Your task to perform on an android device: change notifications settings Image 0: 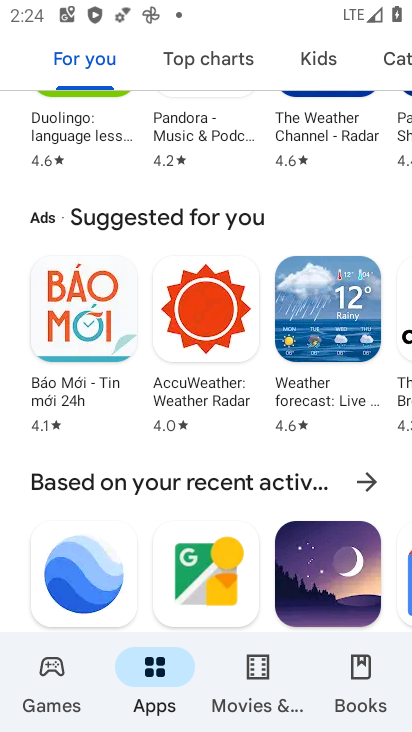
Step 0: press home button
Your task to perform on an android device: change notifications settings Image 1: 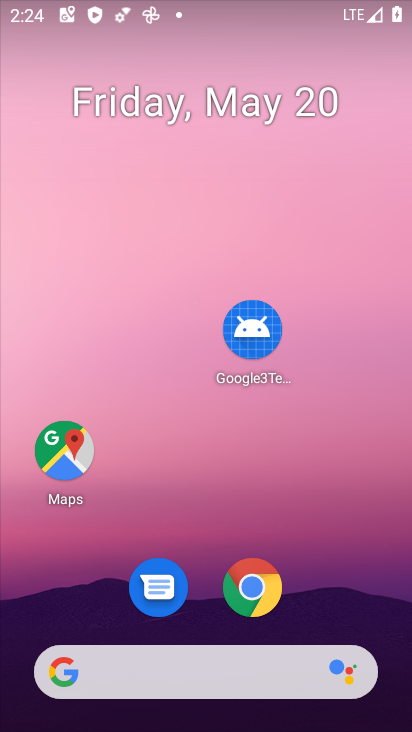
Step 1: drag from (334, 528) to (297, 12)
Your task to perform on an android device: change notifications settings Image 2: 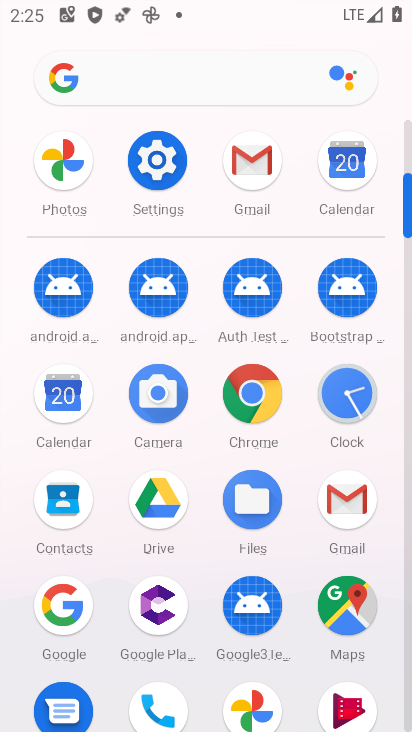
Step 2: click (152, 164)
Your task to perform on an android device: change notifications settings Image 3: 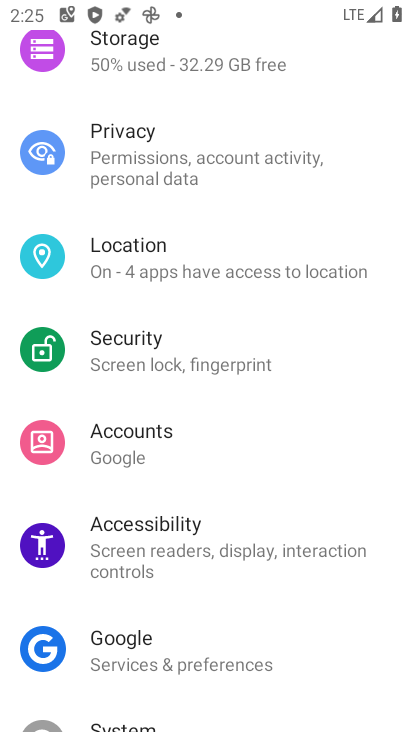
Step 3: drag from (220, 207) to (187, 621)
Your task to perform on an android device: change notifications settings Image 4: 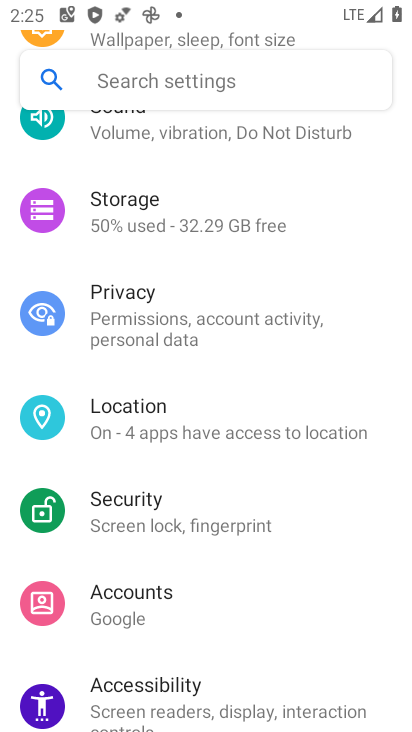
Step 4: drag from (245, 189) to (210, 615)
Your task to perform on an android device: change notifications settings Image 5: 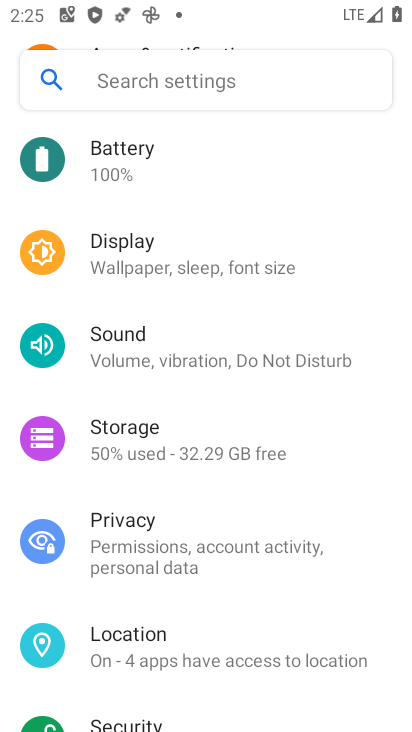
Step 5: drag from (218, 203) to (270, 703)
Your task to perform on an android device: change notifications settings Image 6: 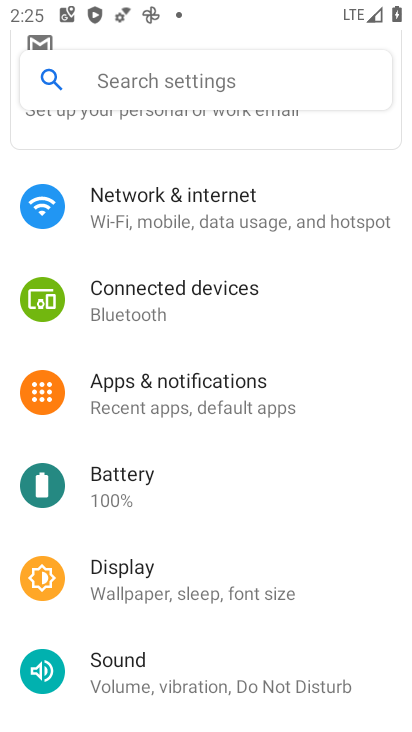
Step 6: click (191, 377)
Your task to perform on an android device: change notifications settings Image 7: 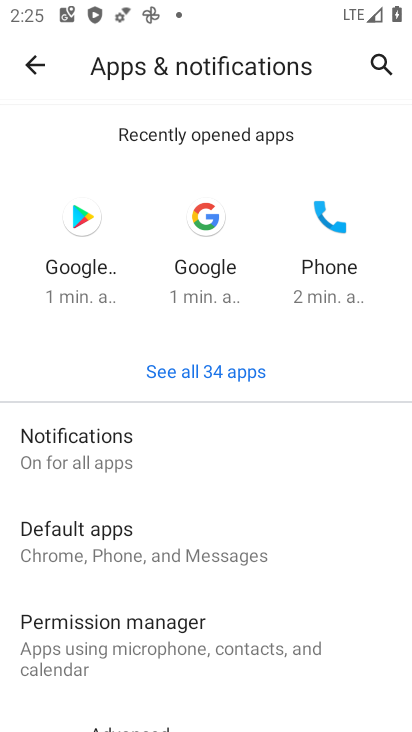
Step 7: task complete